Your task to perform on an android device: Open Amazon Image 0: 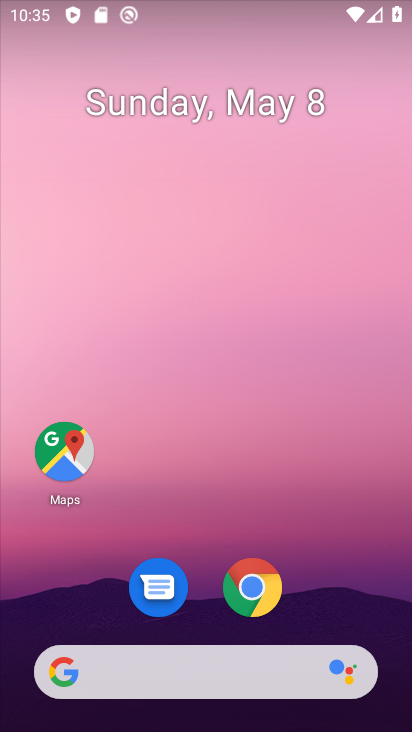
Step 0: drag from (287, 505) to (179, 14)
Your task to perform on an android device: Open Amazon Image 1: 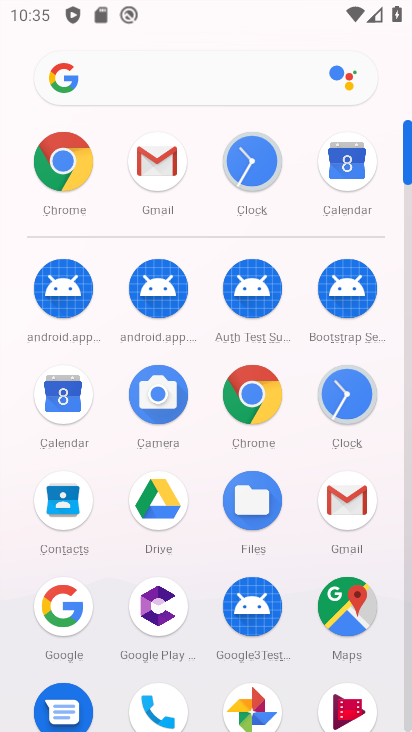
Step 1: click (62, 156)
Your task to perform on an android device: Open Amazon Image 2: 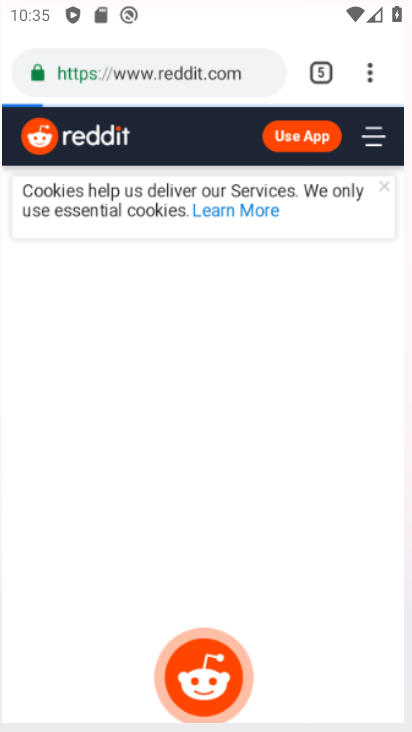
Step 2: click (61, 156)
Your task to perform on an android device: Open Amazon Image 3: 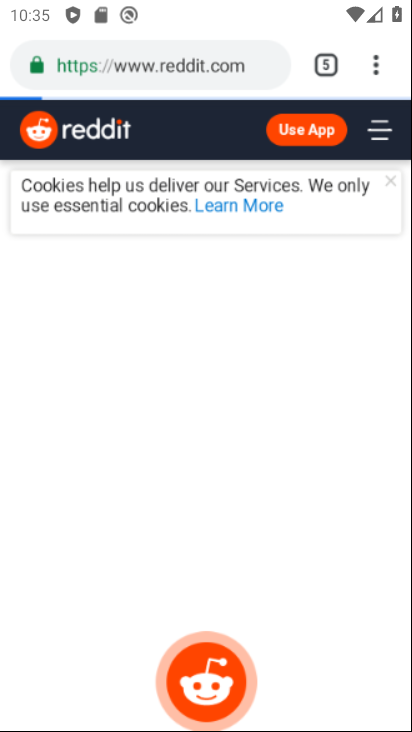
Step 3: click (61, 156)
Your task to perform on an android device: Open Amazon Image 4: 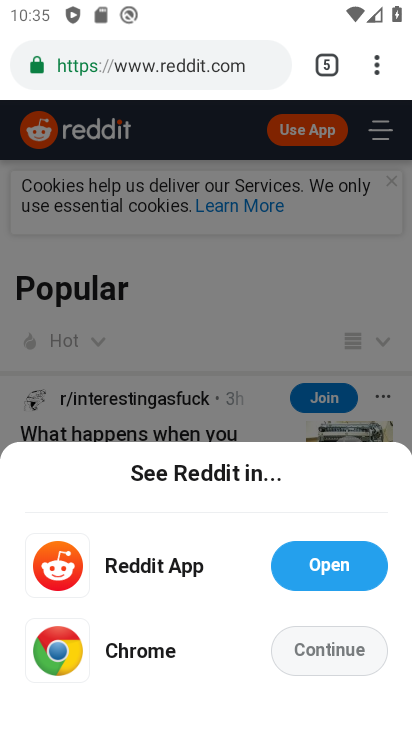
Step 4: drag from (379, 67) to (126, 141)
Your task to perform on an android device: Open Amazon Image 5: 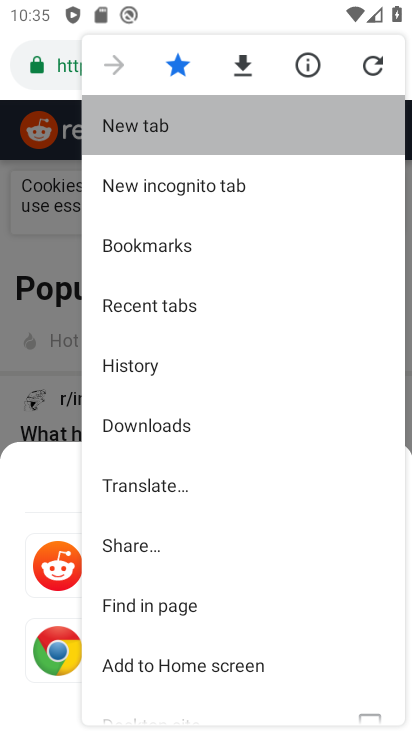
Step 5: click (126, 141)
Your task to perform on an android device: Open Amazon Image 6: 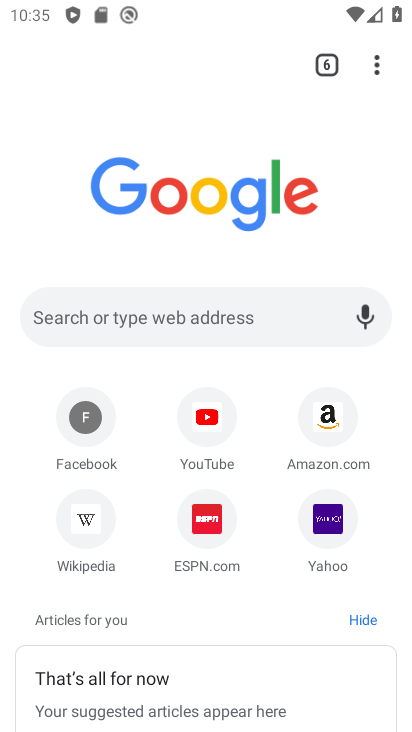
Step 6: click (333, 412)
Your task to perform on an android device: Open Amazon Image 7: 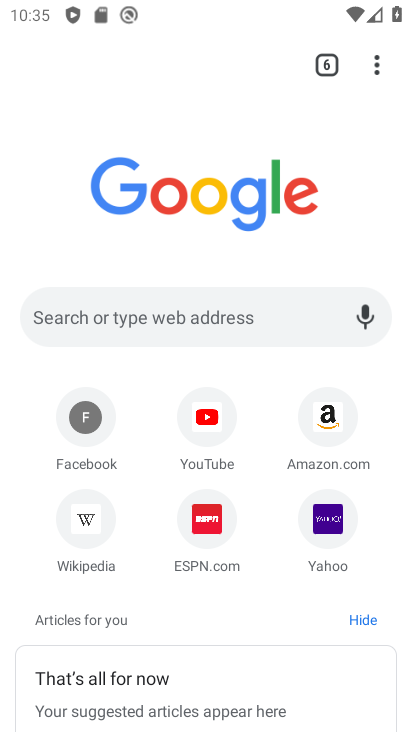
Step 7: click (327, 411)
Your task to perform on an android device: Open Amazon Image 8: 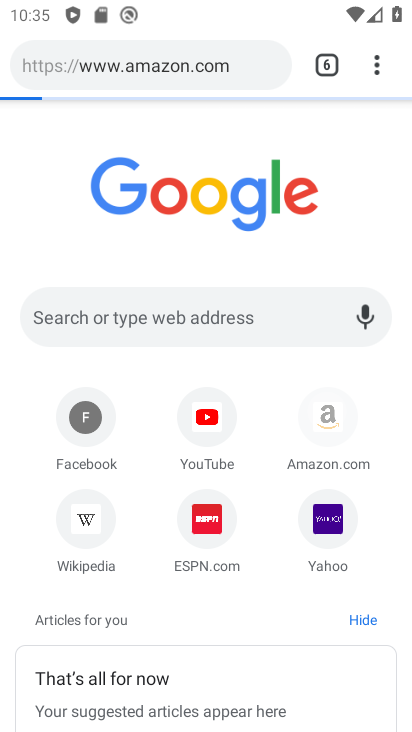
Step 8: click (322, 410)
Your task to perform on an android device: Open Amazon Image 9: 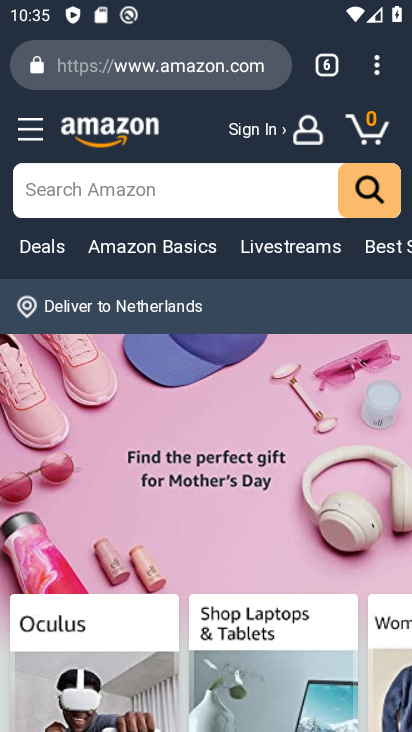
Step 9: task complete